Your task to perform on an android device: Open battery settings Image 0: 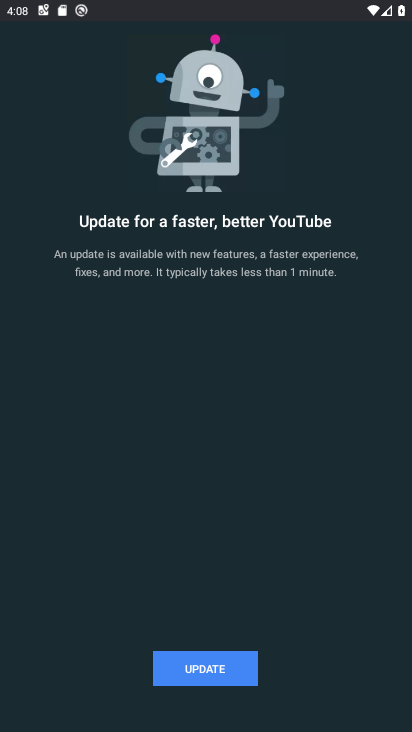
Step 0: press home button
Your task to perform on an android device: Open battery settings Image 1: 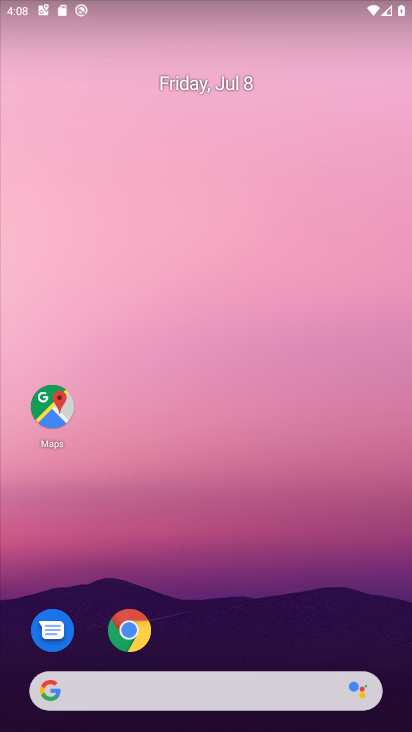
Step 1: drag from (268, 566) to (305, 87)
Your task to perform on an android device: Open battery settings Image 2: 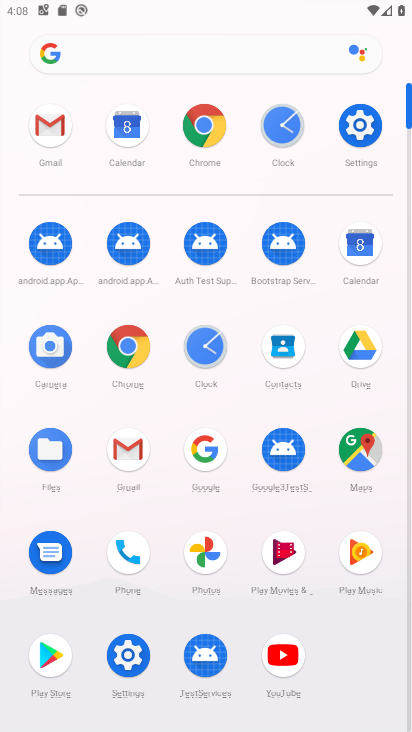
Step 2: click (360, 117)
Your task to perform on an android device: Open battery settings Image 3: 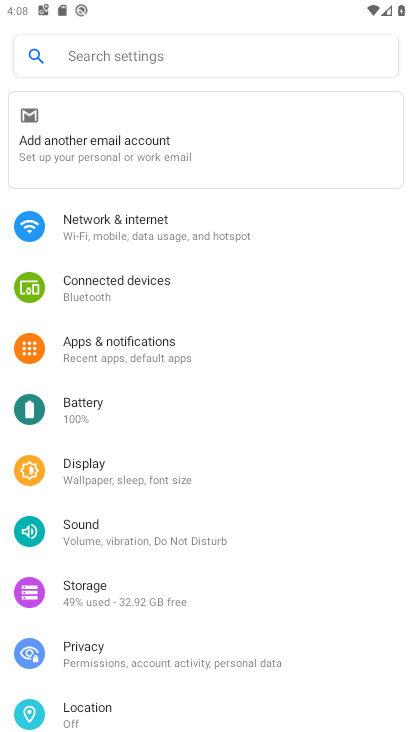
Step 3: click (79, 417)
Your task to perform on an android device: Open battery settings Image 4: 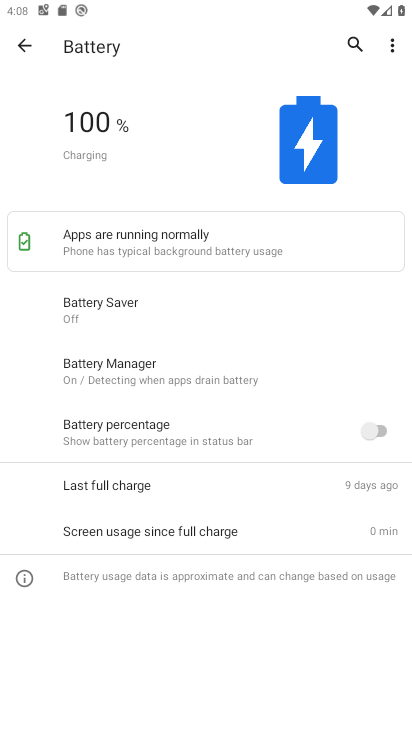
Step 4: task complete